Your task to perform on an android device: Open Google Chrome and click the shortcut for Amazon.com Image 0: 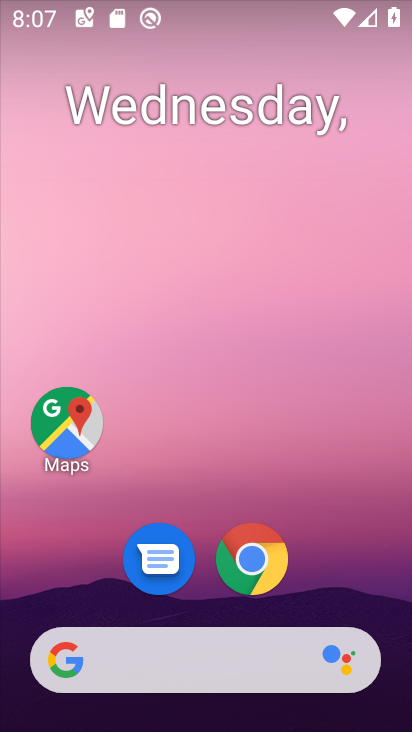
Step 0: drag from (381, 535) to (346, 67)
Your task to perform on an android device: Open Google Chrome and click the shortcut for Amazon.com Image 1: 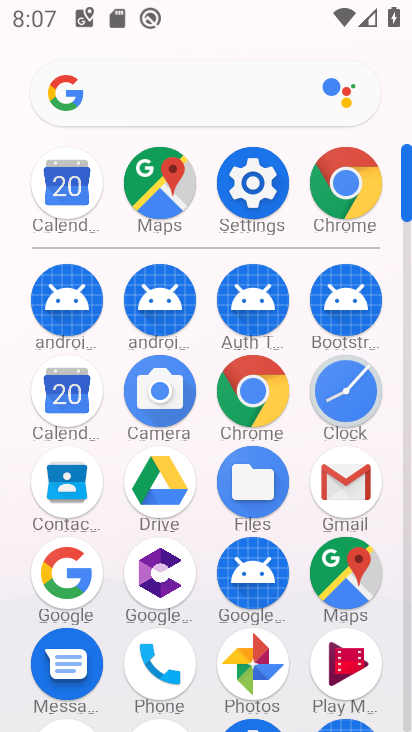
Step 1: click (244, 398)
Your task to perform on an android device: Open Google Chrome and click the shortcut for Amazon.com Image 2: 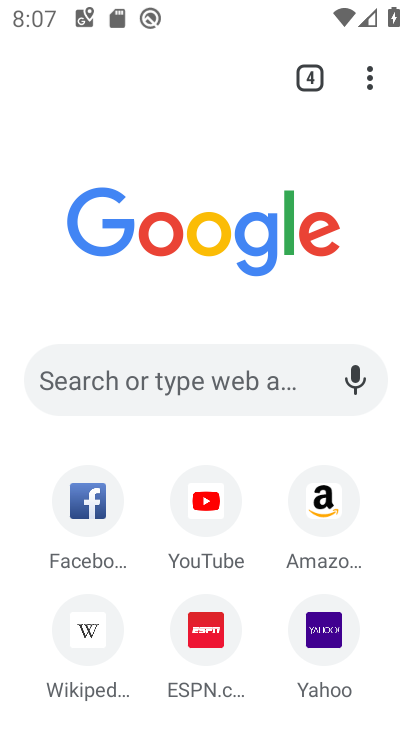
Step 2: click (310, 510)
Your task to perform on an android device: Open Google Chrome and click the shortcut for Amazon.com Image 3: 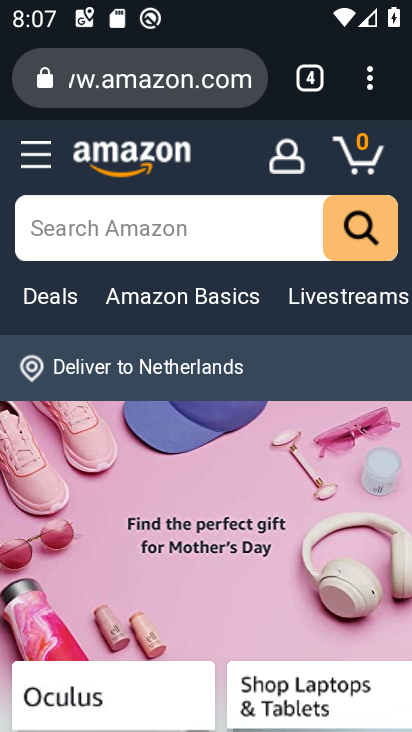
Step 3: task complete